Your task to perform on an android device: clear all cookies in the chrome app Image 0: 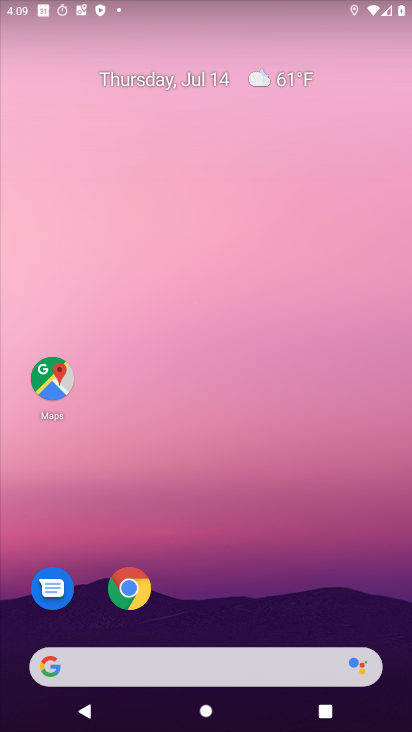
Step 0: click (133, 589)
Your task to perform on an android device: clear all cookies in the chrome app Image 1: 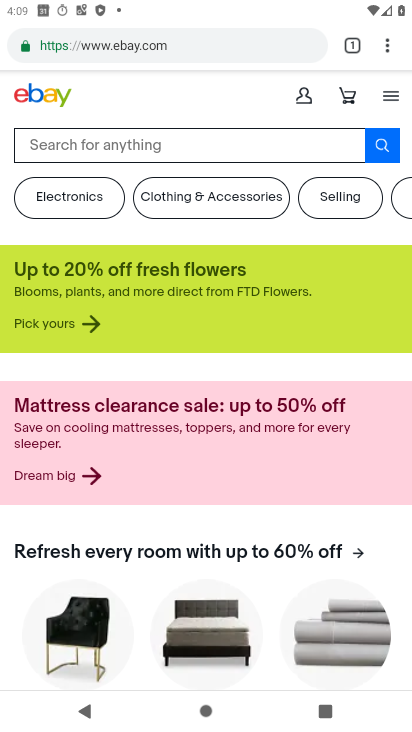
Step 1: click (390, 47)
Your task to perform on an android device: clear all cookies in the chrome app Image 2: 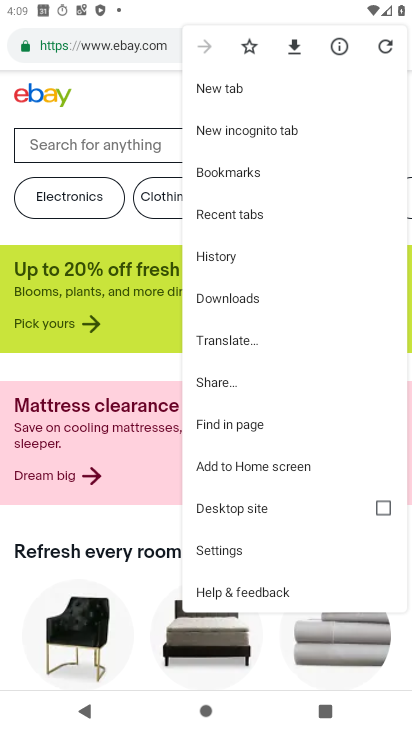
Step 2: click (222, 551)
Your task to perform on an android device: clear all cookies in the chrome app Image 3: 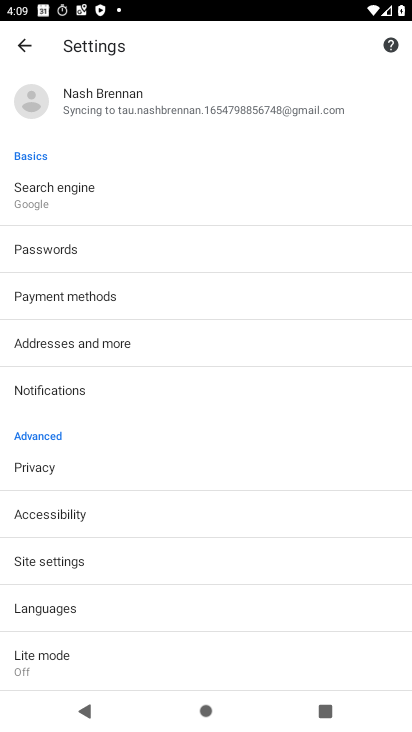
Step 3: click (33, 468)
Your task to perform on an android device: clear all cookies in the chrome app Image 4: 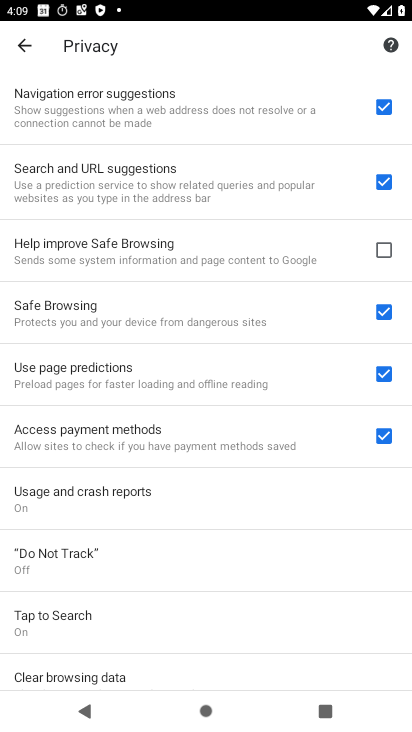
Step 4: click (47, 676)
Your task to perform on an android device: clear all cookies in the chrome app Image 5: 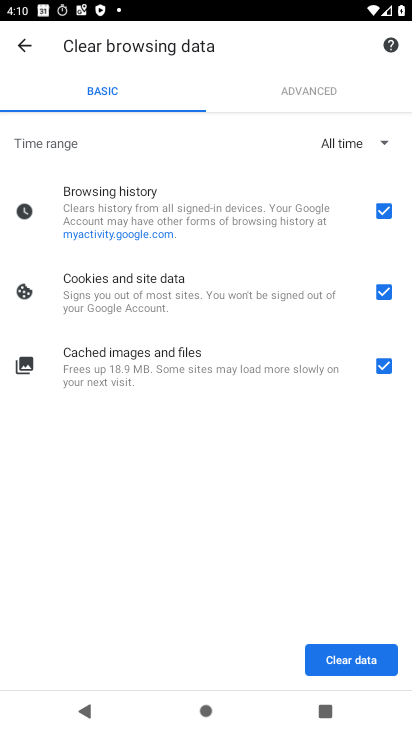
Step 5: click (392, 201)
Your task to perform on an android device: clear all cookies in the chrome app Image 6: 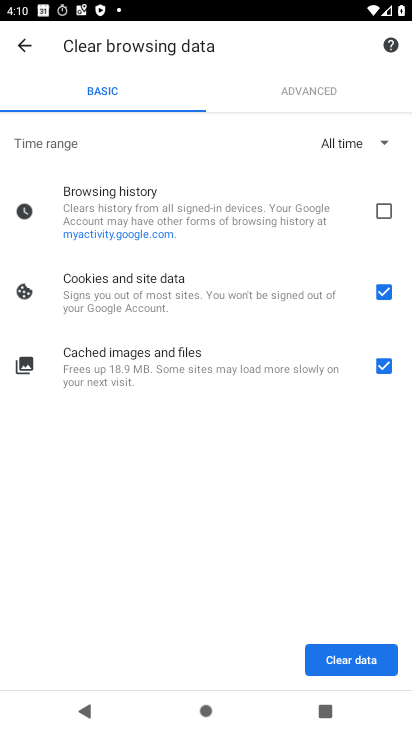
Step 6: click (384, 369)
Your task to perform on an android device: clear all cookies in the chrome app Image 7: 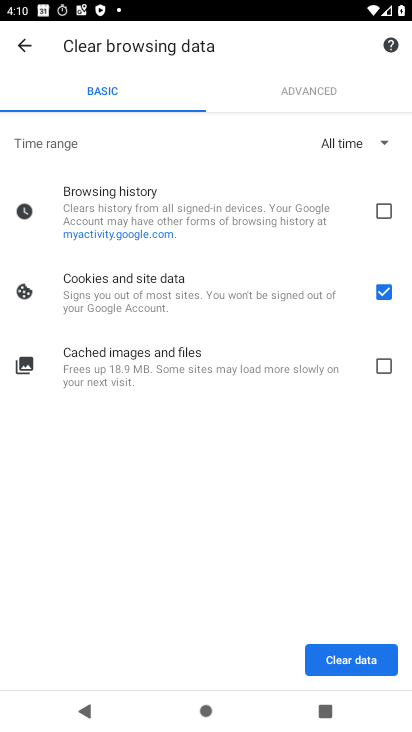
Step 7: click (355, 658)
Your task to perform on an android device: clear all cookies in the chrome app Image 8: 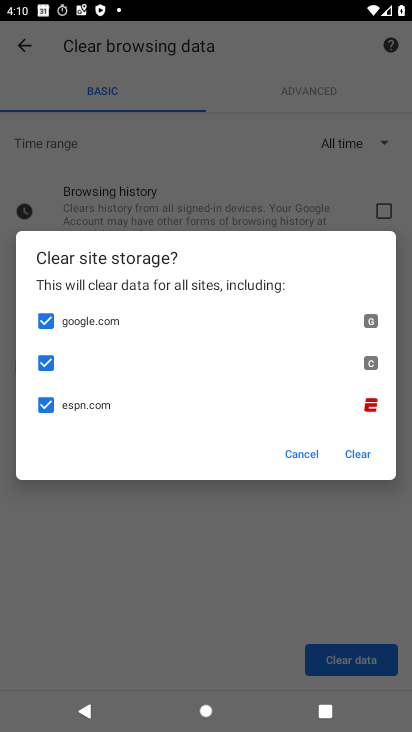
Step 8: click (356, 455)
Your task to perform on an android device: clear all cookies in the chrome app Image 9: 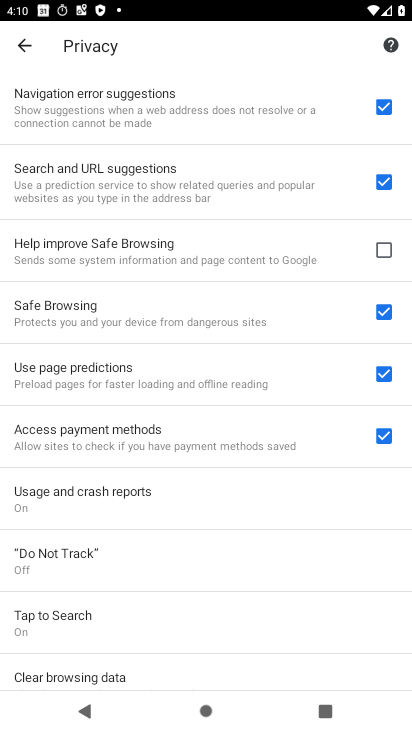
Step 9: task complete